Your task to perform on an android device: Do I have any events tomorrow? Image 0: 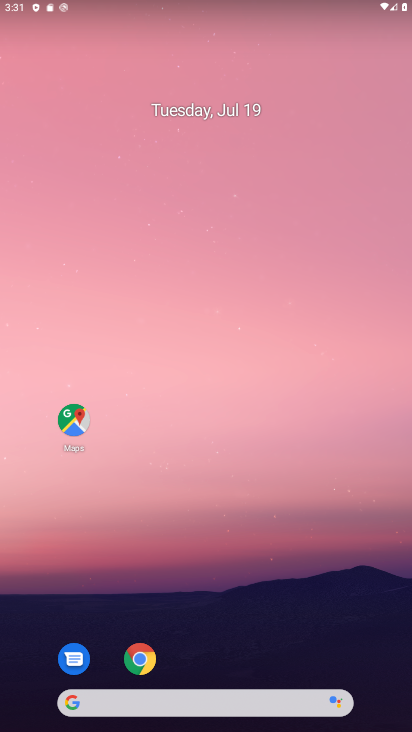
Step 0: drag from (133, 10) to (407, 0)
Your task to perform on an android device: Do I have any events tomorrow? Image 1: 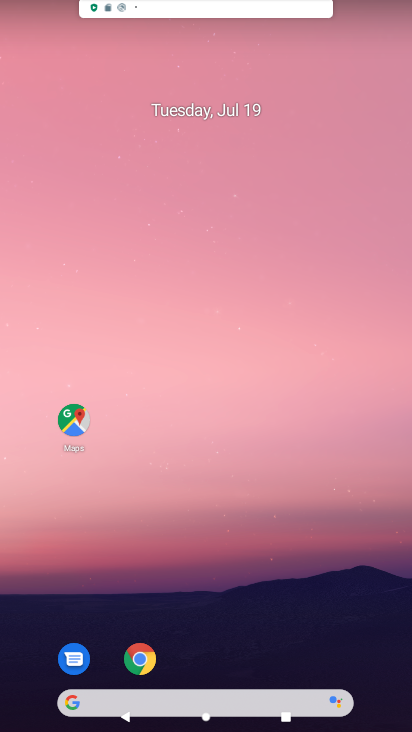
Step 1: drag from (192, 517) to (193, 87)
Your task to perform on an android device: Do I have any events tomorrow? Image 2: 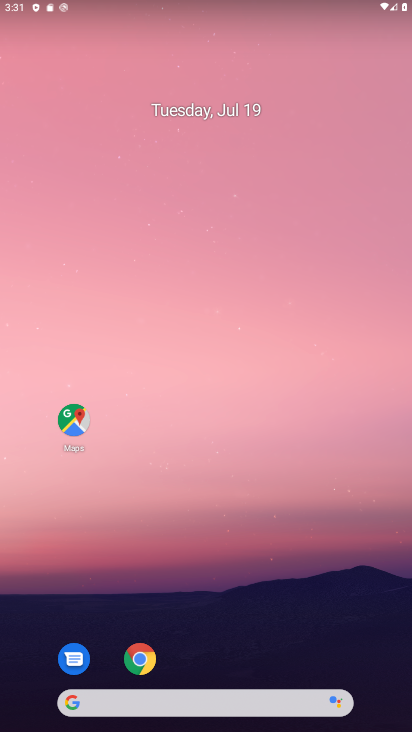
Step 2: drag from (182, 545) to (240, 7)
Your task to perform on an android device: Do I have any events tomorrow? Image 3: 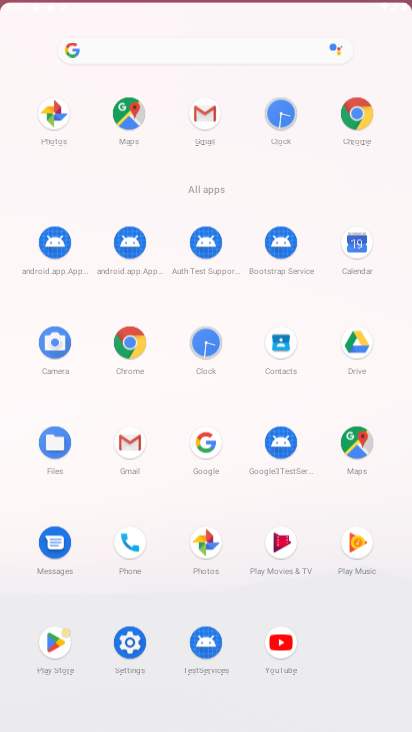
Step 3: drag from (260, 338) to (270, 13)
Your task to perform on an android device: Do I have any events tomorrow? Image 4: 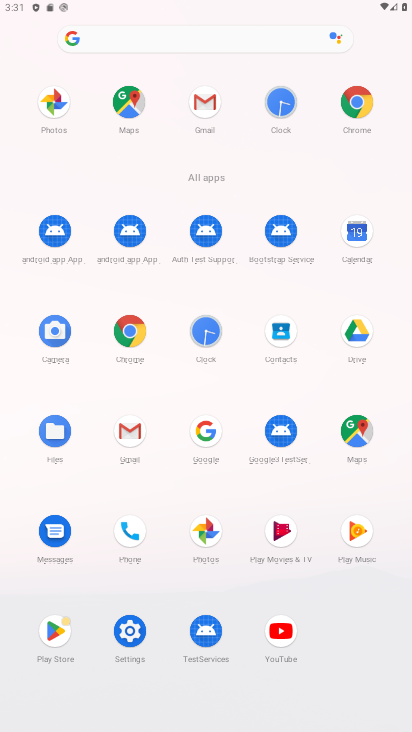
Step 4: click (372, 238)
Your task to perform on an android device: Do I have any events tomorrow? Image 5: 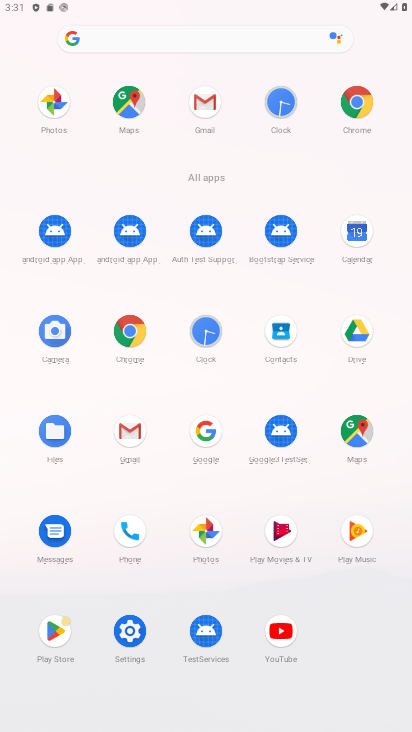
Step 5: click (371, 234)
Your task to perform on an android device: Do I have any events tomorrow? Image 6: 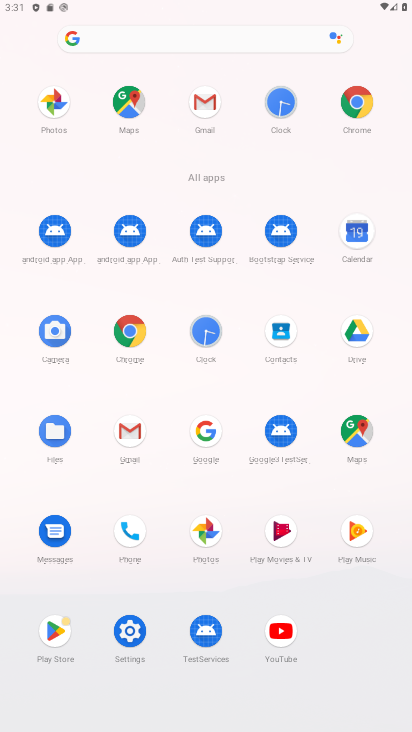
Step 6: click (364, 237)
Your task to perform on an android device: Do I have any events tomorrow? Image 7: 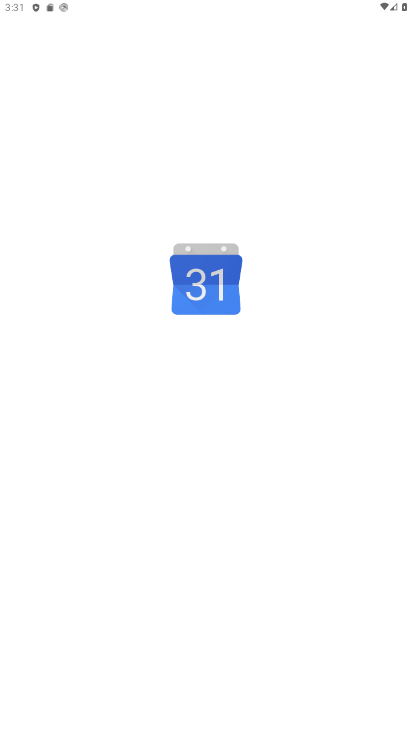
Step 7: click (362, 239)
Your task to perform on an android device: Do I have any events tomorrow? Image 8: 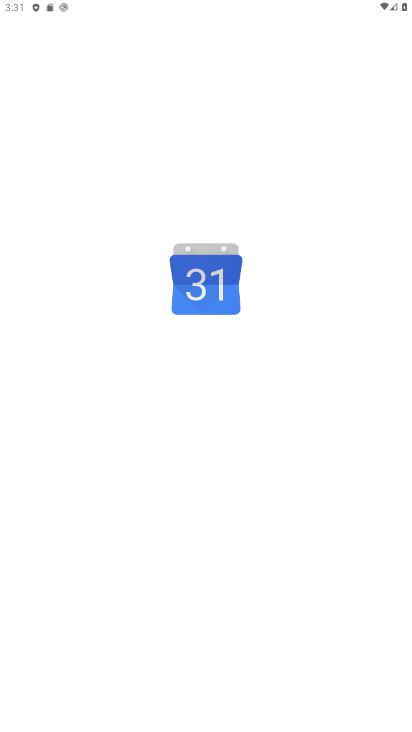
Step 8: click (362, 239)
Your task to perform on an android device: Do I have any events tomorrow? Image 9: 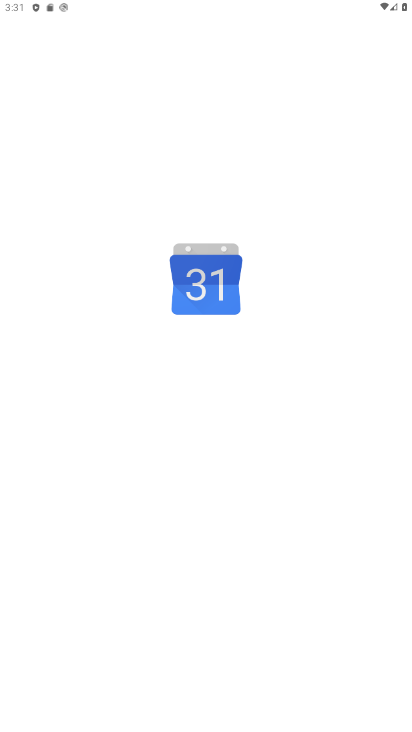
Step 9: click (362, 239)
Your task to perform on an android device: Do I have any events tomorrow? Image 10: 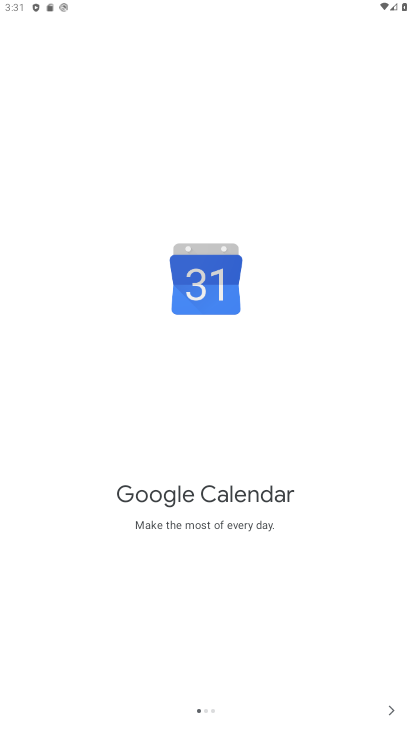
Step 10: click (396, 718)
Your task to perform on an android device: Do I have any events tomorrow? Image 11: 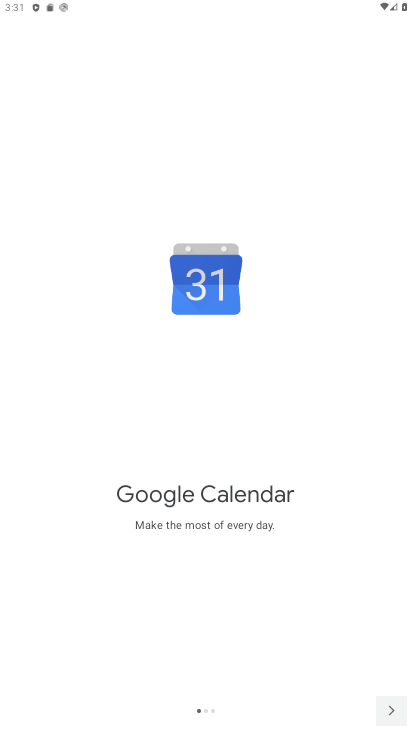
Step 11: click (392, 712)
Your task to perform on an android device: Do I have any events tomorrow? Image 12: 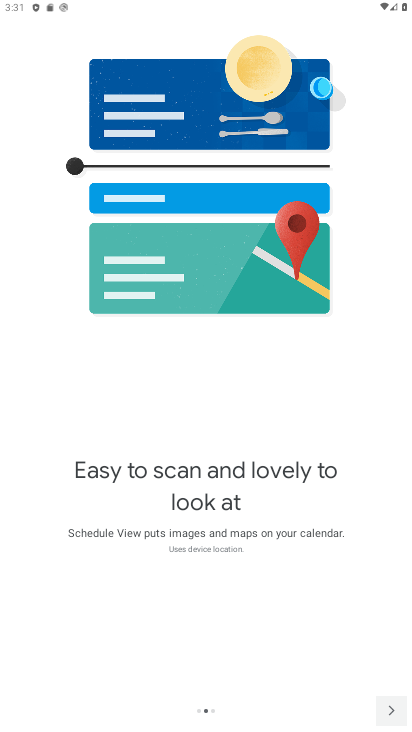
Step 12: click (391, 711)
Your task to perform on an android device: Do I have any events tomorrow? Image 13: 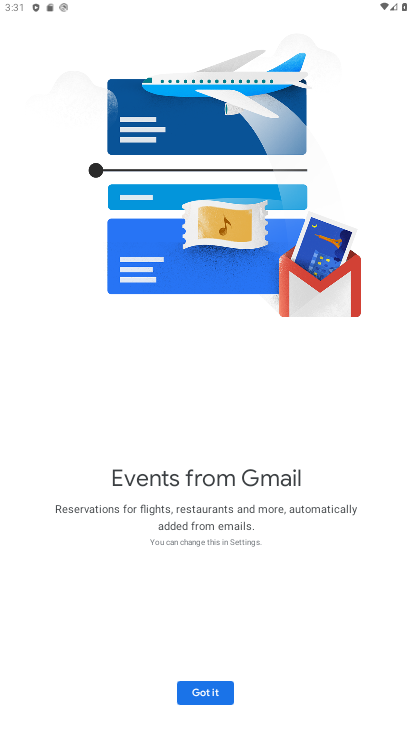
Step 13: click (192, 694)
Your task to perform on an android device: Do I have any events tomorrow? Image 14: 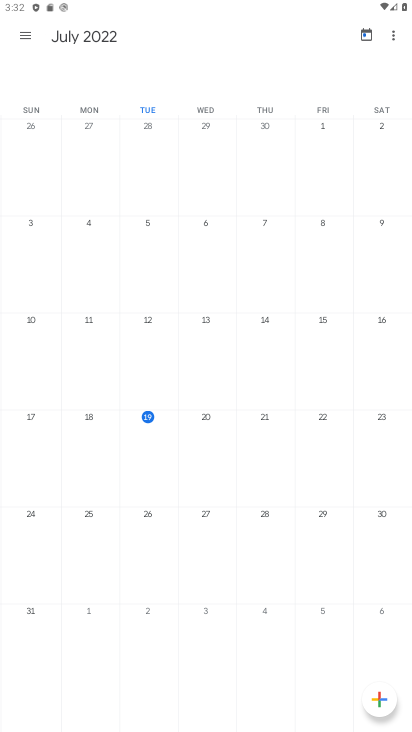
Step 14: click (213, 418)
Your task to perform on an android device: Do I have any events tomorrow? Image 15: 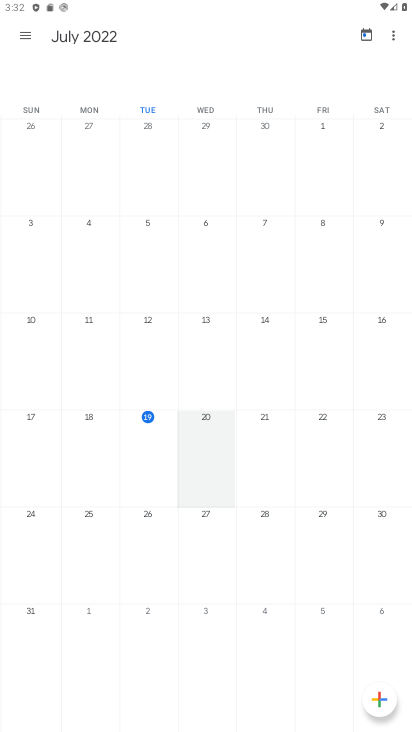
Step 15: click (213, 418)
Your task to perform on an android device: Do I have any events tomorrow? Image 16: 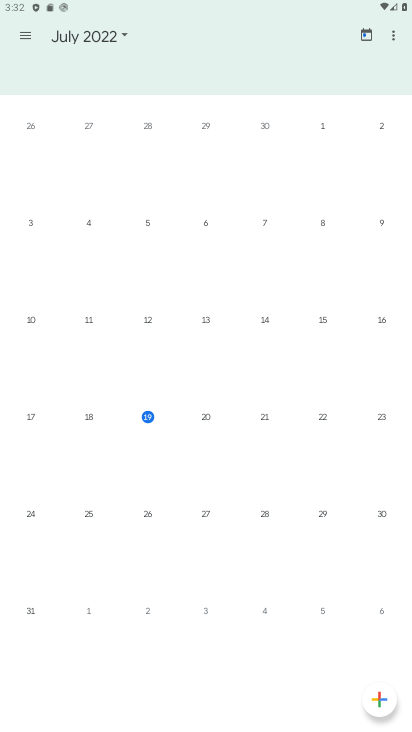
Step 16: click (218, 415)
Your task to perform on an android device: Do I have any events tomorrow? Image 17: 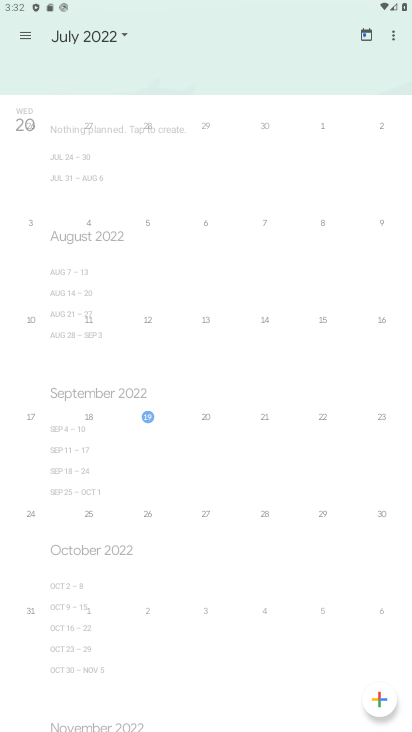
Step 17: click (219, 415)
Your task to perform on an android device: Do I have any events tomorrow? Image 18: 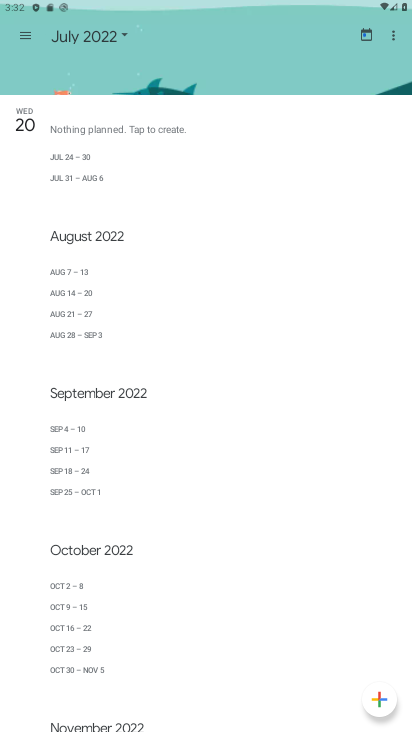
Step 18: task complete